Your task to perform on an android device: turn off translation in the chrome app Image 0: 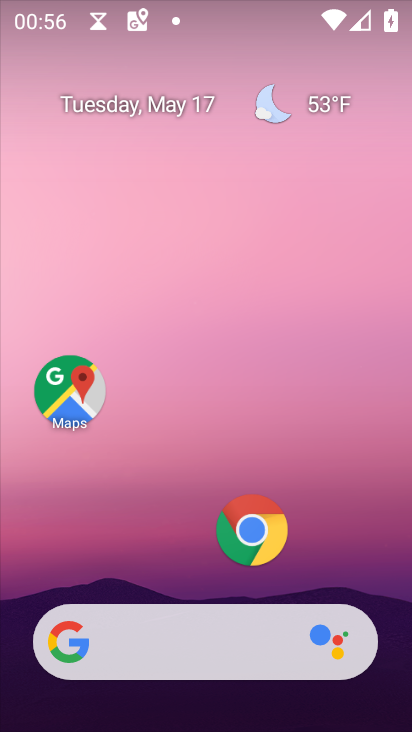
Step 0: click (248, 535)
Your task to perform on an android device: turn off translation in the chrome app Image 1: 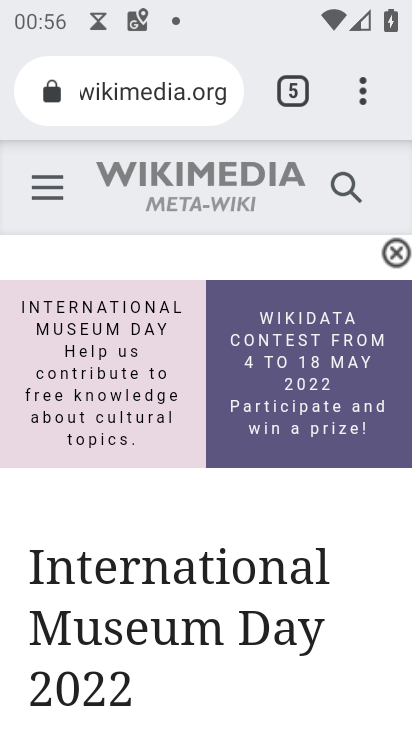
Step 1: click (354, 105)
Your task to perform on an android device: turn off translation in the chrome app Image 2: 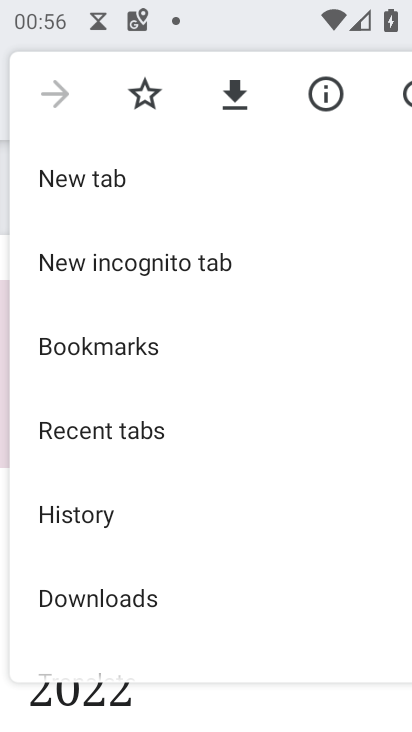
Step 2: drag from (239, 471) to (242, 404)
Your task to perform on an android device: turn off translation in the chrome app Image 3: 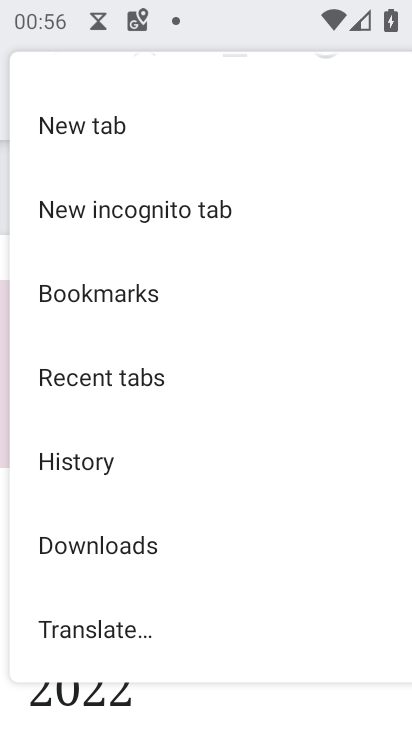
Step 3: click (139, 630)
Your task to perform on an android device: turn off translation in the chrome app Image 4: 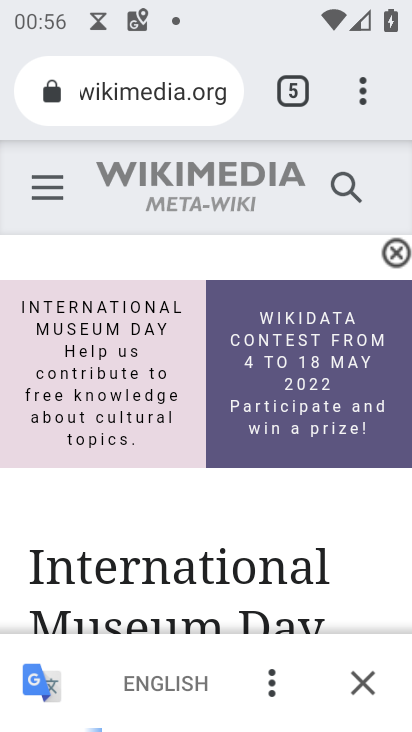
Step 4: click (267, 680)
Your task to perform on an android device: turn off translation in the chrome app Image 5: 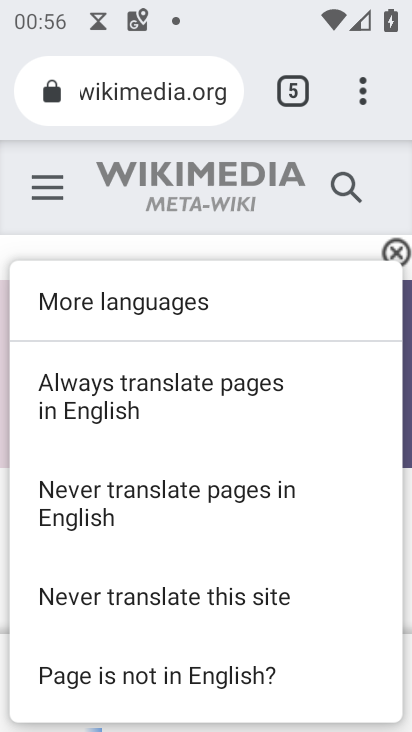
Step 5: click (209, 479)
Your task to perform on an android device: turn off translation in the chrome app Image 6: 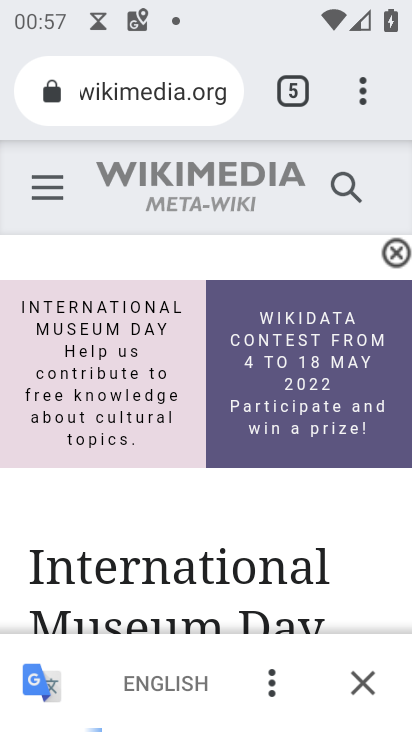
Step 6: task complete